Your task to perform on an android device: Go to battery settings Image 0: 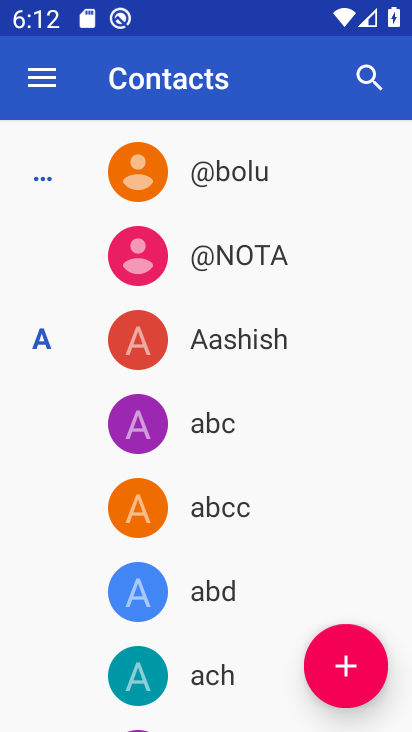
Step 0: press home button
Your task to perform on an android device: Go to battery settings Image 1: 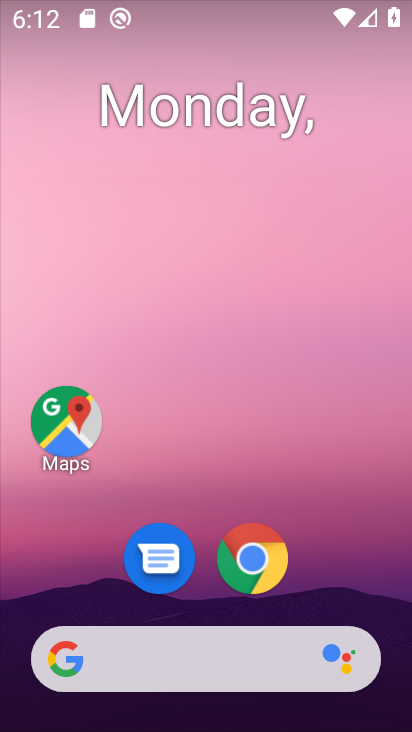
Step 1: drag from (353, 609) to (323, 97)
Your task to perform on an android device: Go to battery settings Image 2: 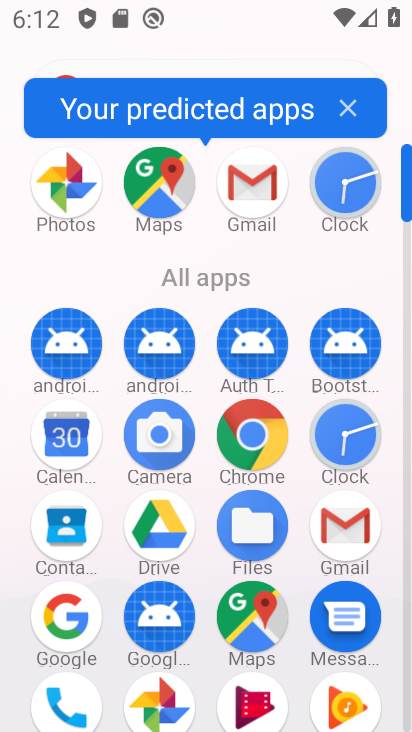
Step 2: click (407, 462)
Your task to perform on an android device: Go to battery settings Image 3: 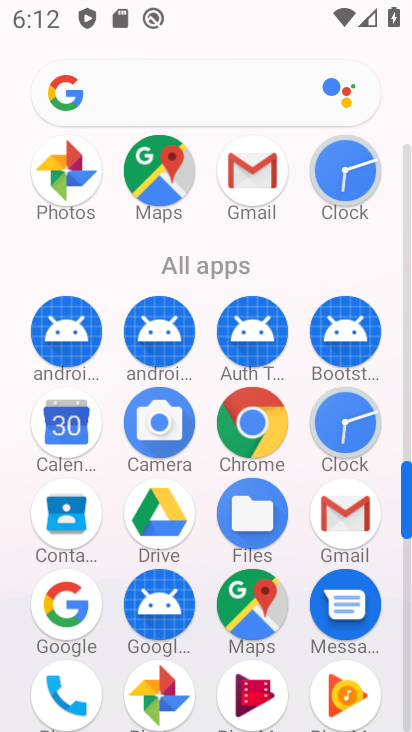
Step 3: drag from (407, 464) to (398, 618)
Your task to perform on an android device: Go to battery settings Image 4: 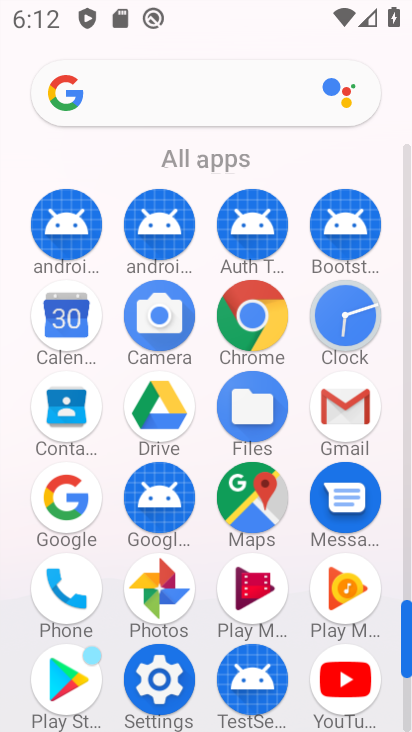
Step 4: click (135, 673)
Your task to perform on an android device: Go to battery settings Image 5: 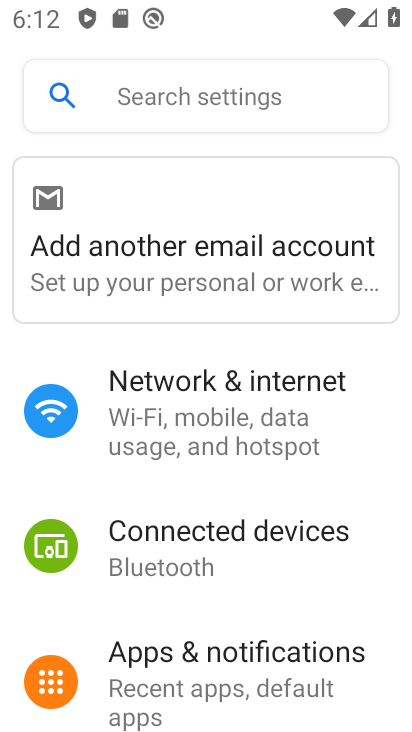
Step 5: drag from (211, 594) to (250, 185)
Your task to perform on an android device: Go to battery settings Image 6: 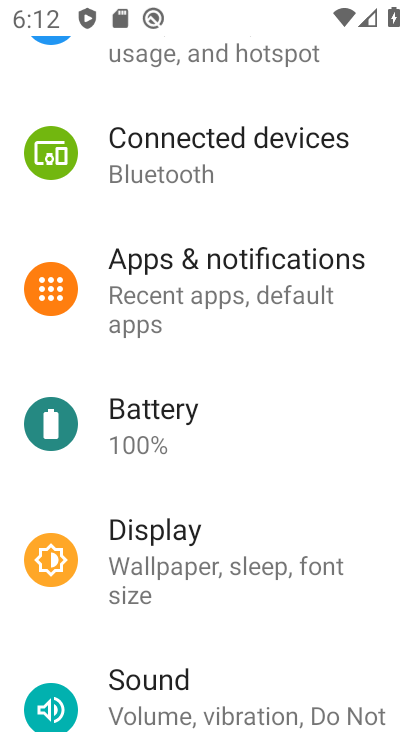
Step 6: drag from (249, 506) to (318, 218)
Your task to perform on an android device: Go to battery settings Image 7: 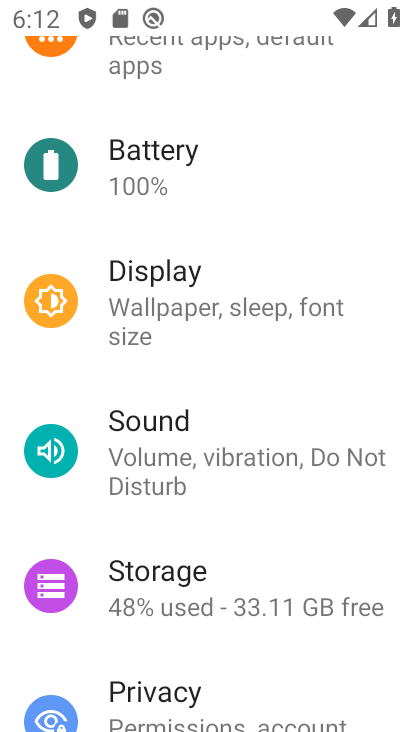
Step 7: click (138, 168)
Your task to perform on an android device: Go to battery settings Image 8: 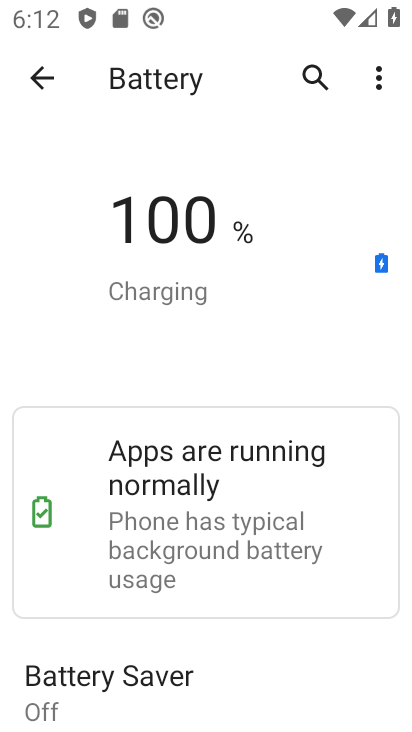
Step 8: task complete